Your task to perform on an android device: Go to Yahoo.com Image 0: 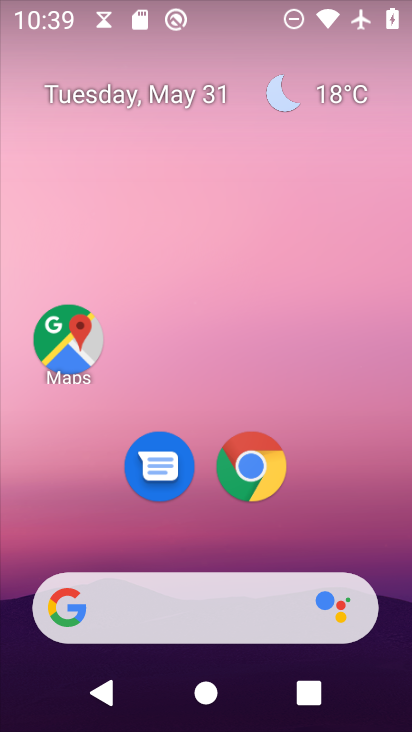
Step 0: drag from (332, 520) to (270, 39)
Your task to perform on an android device: Go to Yahoo.com Image 1: 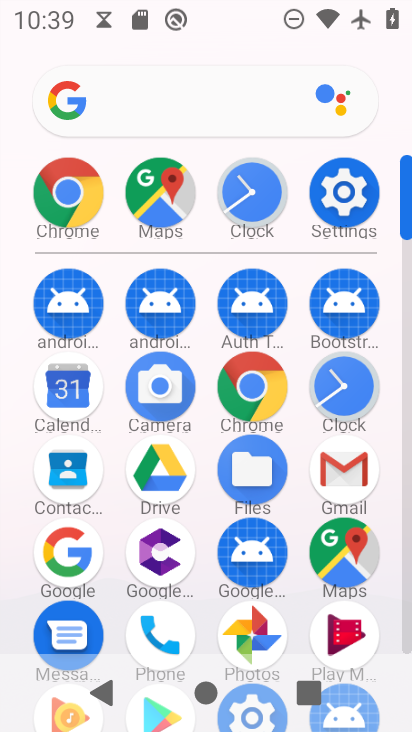
Step 1: click (253, 379)
Your task to perform on an android device: Go to Yahoo.com Image 2: 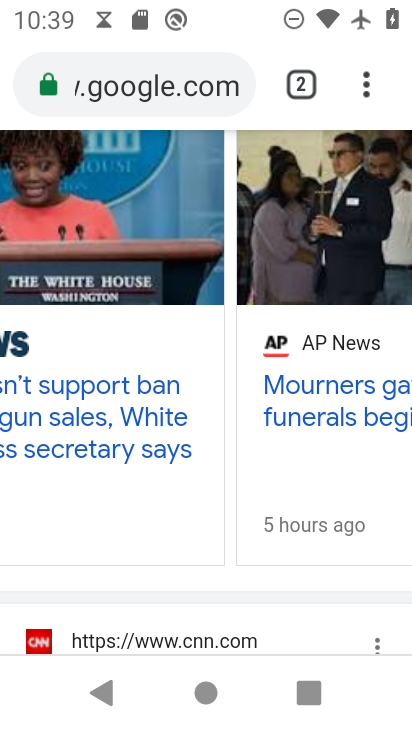
Step 2: click (190, 84)
Your task to perform on an android device: Go to Yahoo.com Image 3: 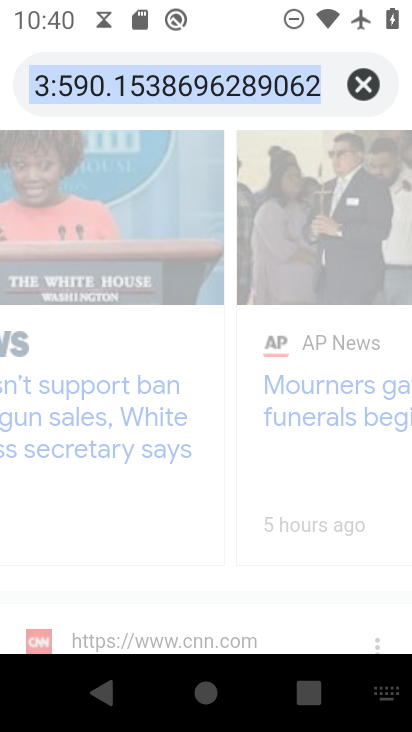
Step 3: click (360, 89)
Your task to perform on an android device: Go to Yahoo.com Image 4: 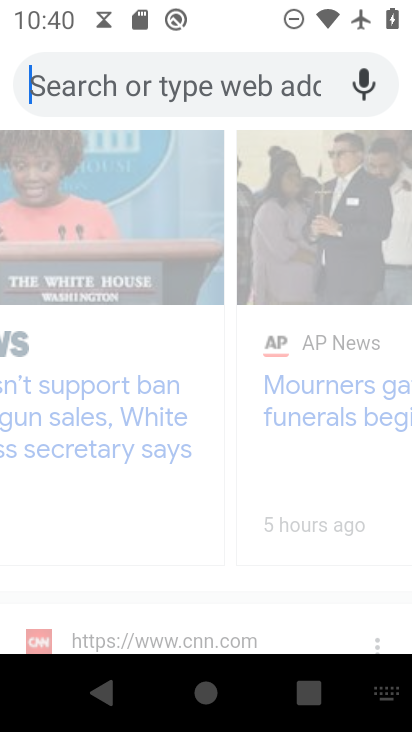
Step 4: type "Yahoo.com"
Your task to perform on an android device: Go to Yahoo.com Image 5: 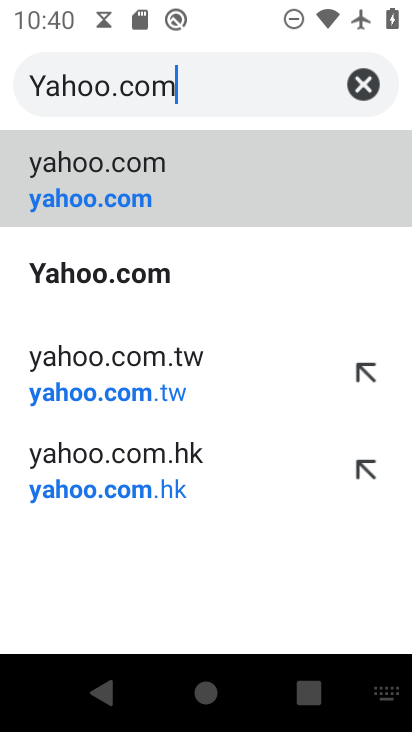
Step 5: type ""
Your task to perform on an android device: Go to Yahoo.com Image 6: 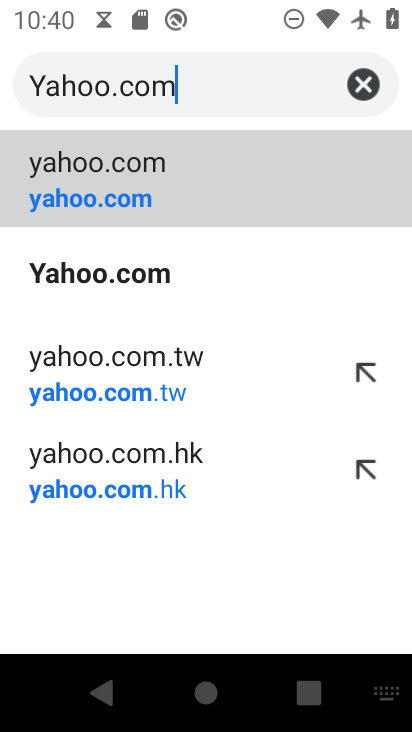
Step 6: click (203, 145)
Your task to perform on an android device: Go to Yahoo.com Image 7: 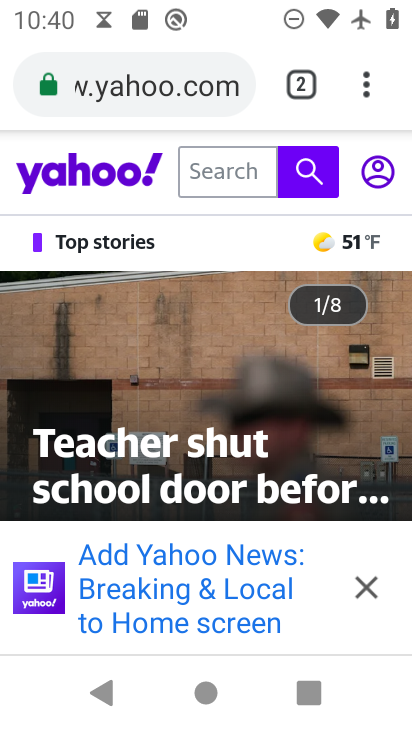
Step 7: task complete